Your task to perform on an android device: Open Wikipedia Image 0: 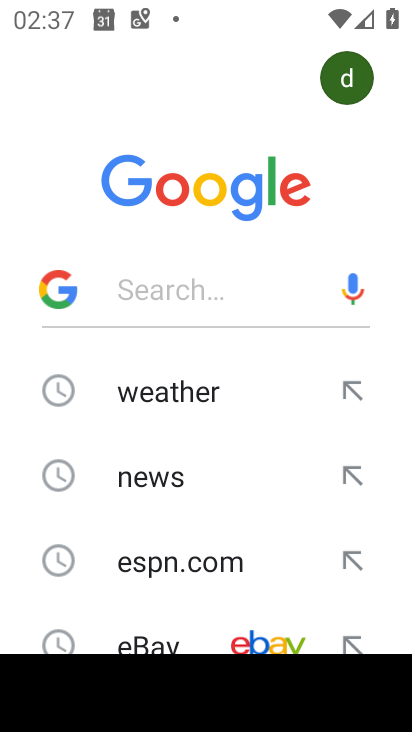
Step 0: press home button
Your task to perform on an android device: Open Wikipedia Image 1: 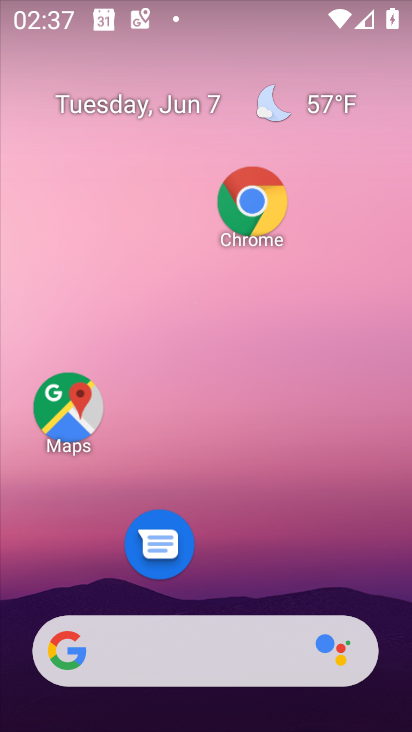
Step 1: click (254, 189)
Your task to perform on an android device: Open Wikipedia Image 2: 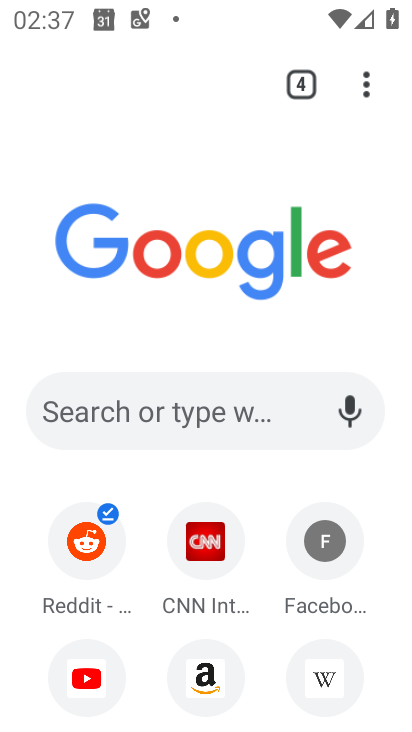
Step 2: drag from (271, 532) to (297, 361)
Your task to perform on an android device: Open Wikipedia Image 3: 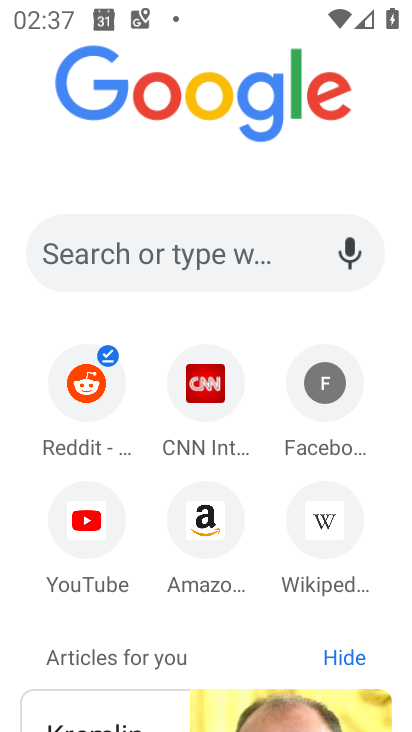
Step 3: click (320, 527)
Your task to perform on an android device: Open Wikipedia Image 4: 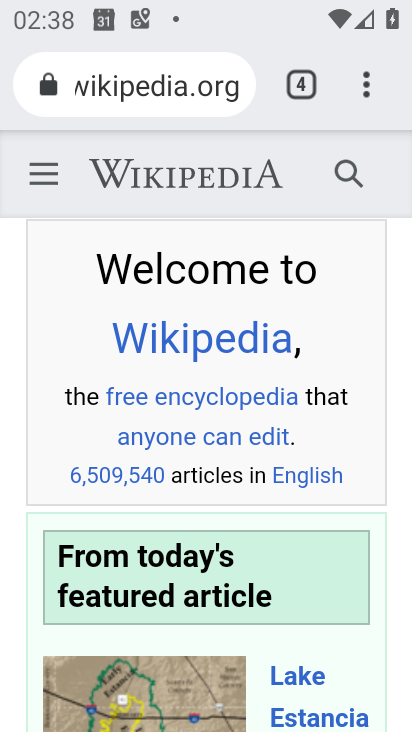
Step 4: task complete